Your task to perform on an android device: Turn on the flashlight Image 0: 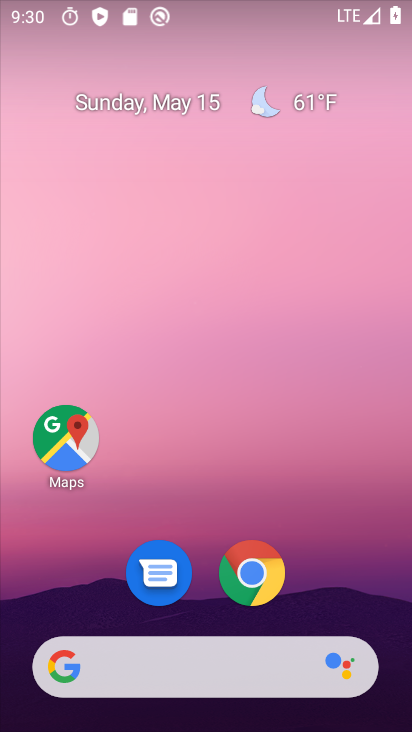
Step 0: drag from (35, 650) to (276, 142)
Your task to perform on an android device: Turn on the flashlight Image 1: 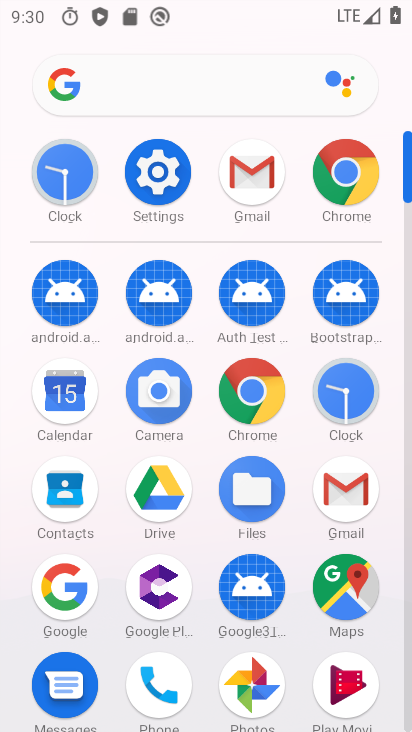
Step 1: click (164, 167)
Your task to perform on an android device: Turn on the flashlight Image 2: 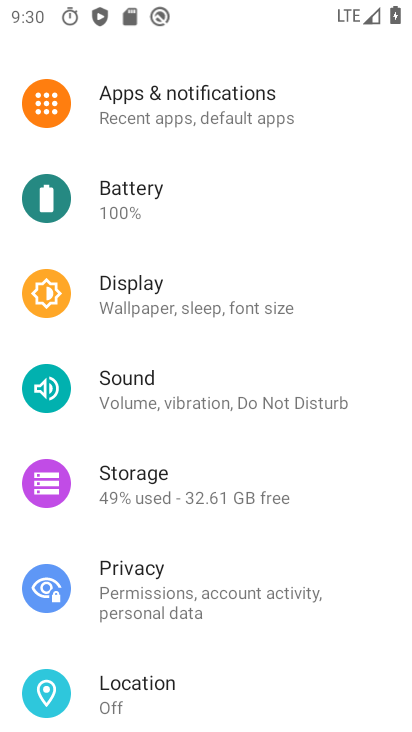
Step 2: task complete